Your task to perform on an android device: all mails in gmail Image 0: 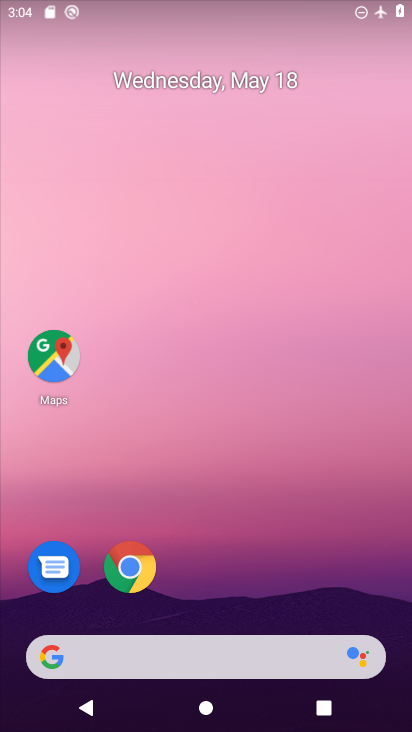
Step 0: drag from (232, 594) to (254, 210)
Your task to perform on an android device: all mails in gmail Image 1: 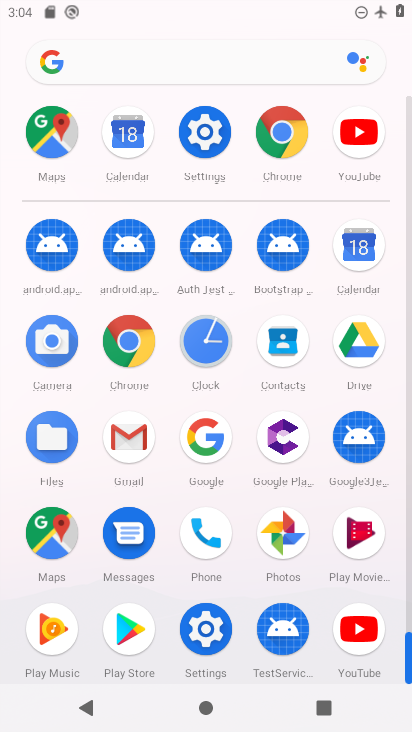
Step 1: click (111, 428)
Your task to perform on an android device: all mails in gmail Image 2: 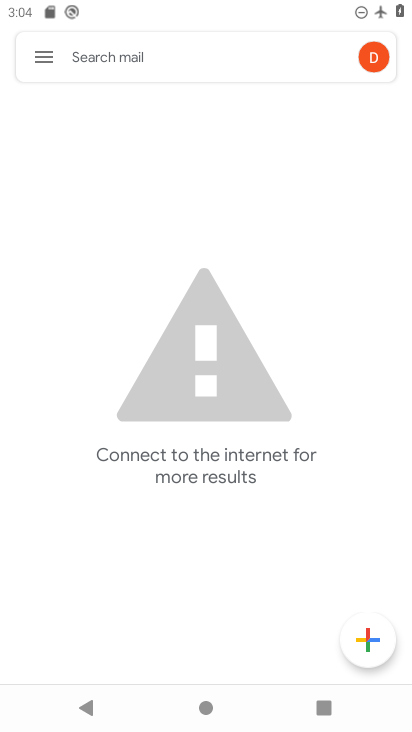
Step 2: click (27, 50)
Your task to perform on an android device: all mails in gmail Image 3: 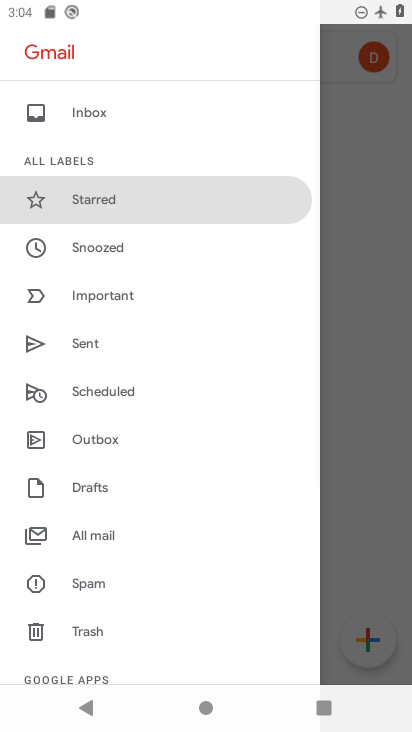
Step 3: click (83, 542)
Your task to perform on an android device: all mails in gmail Image 4: 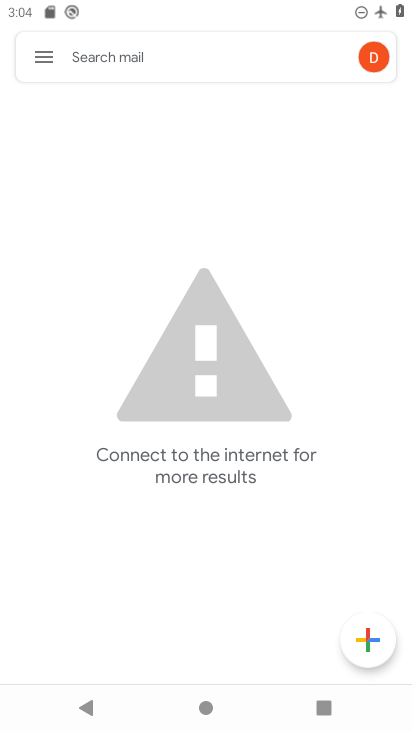
Step 4: task complete